Your task to perform on an android device: Show me recent news Image 0: 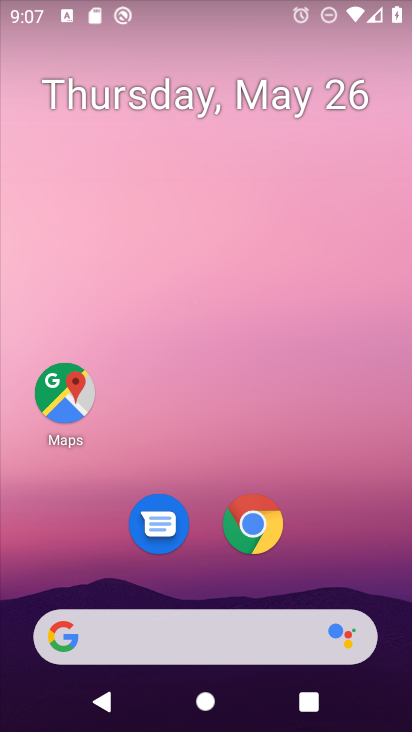
Step 0: click (231, 633)
Your task to perform on an android device: Show me recent news Image 1: 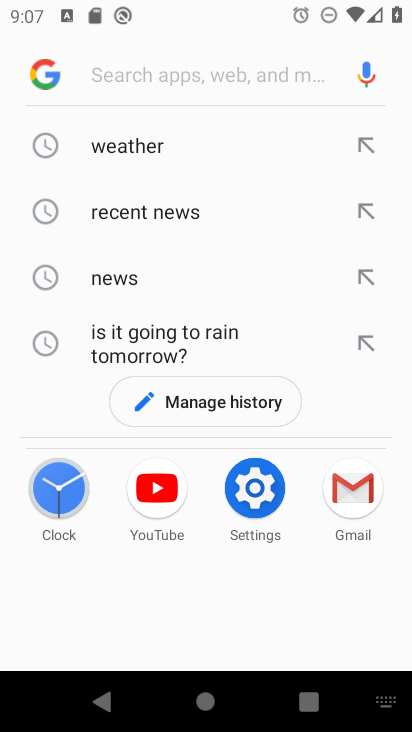
Step 1: click (75, 212)
Your task to perform on an android device: Show me recent news Image 2: 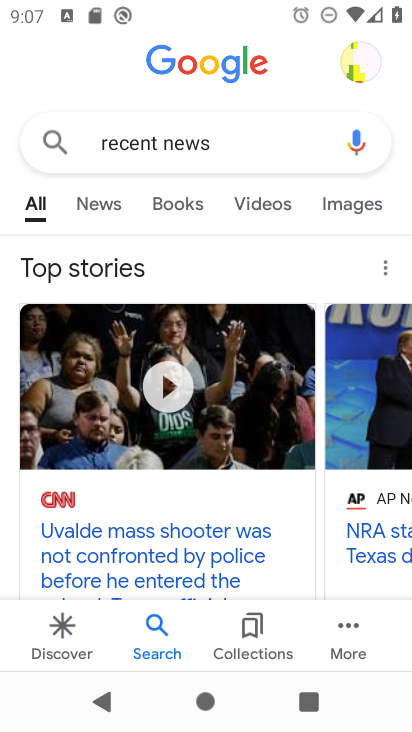
Step 2: click (90, 200)
Your task to perform on an android device: Show me recent news Image 3: 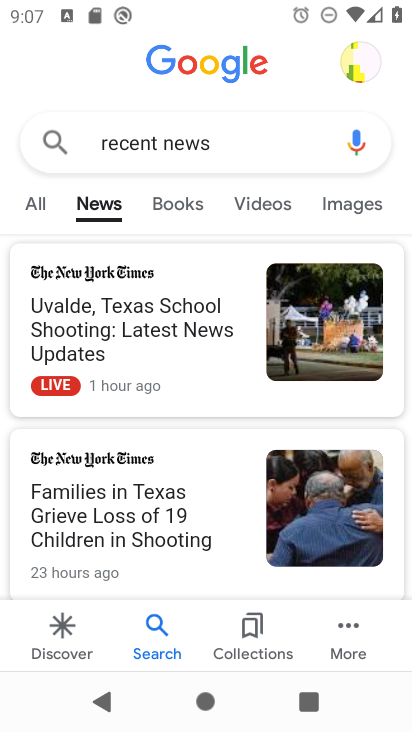
Step 3: task complete